Your task to perform on an android device: Search for asus zenbook on walmart, select the first entry, add it to the cart, then select checkout. Image 0: 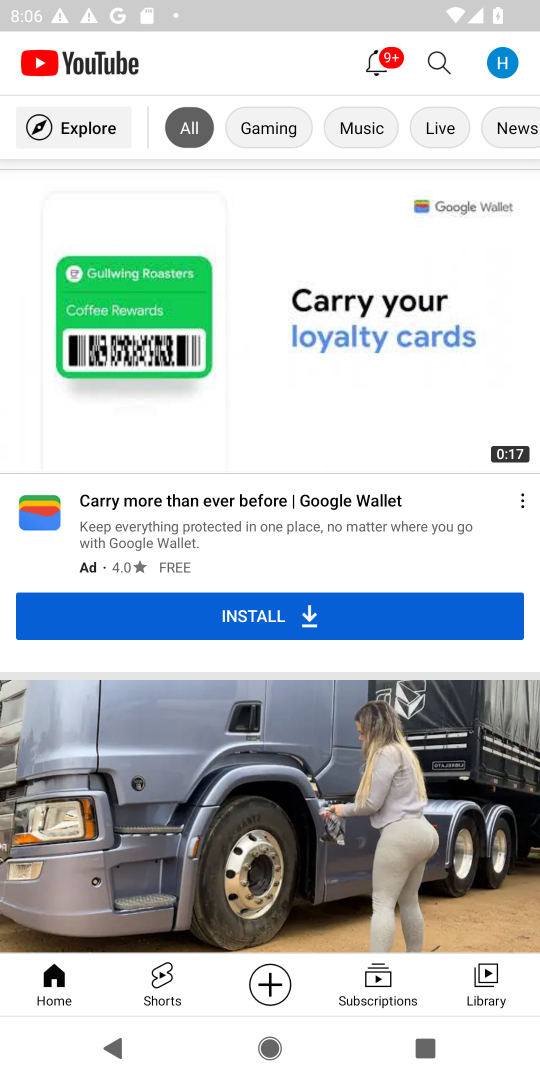
Step 0: press home button
Your task to perform on an android device: Search for asus zenbook on walmart, select the first entry, add it to the cart, then select checkout. Image 1: 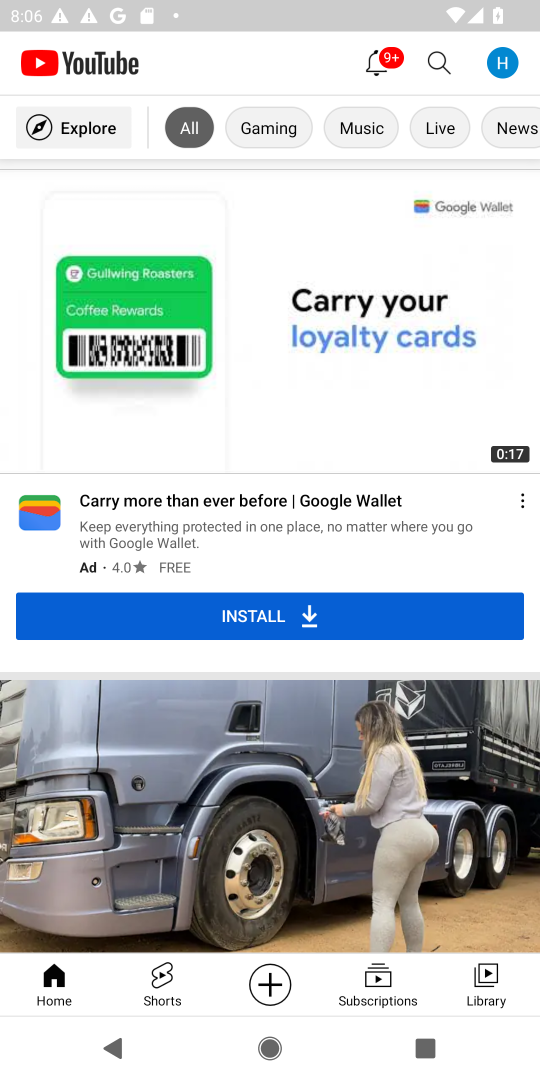
Step 1: press home button
Your task to perform on an android device: Search for asus zenbook on walmart, select the first entry, add it to the cart, then select checkout. Image 2: 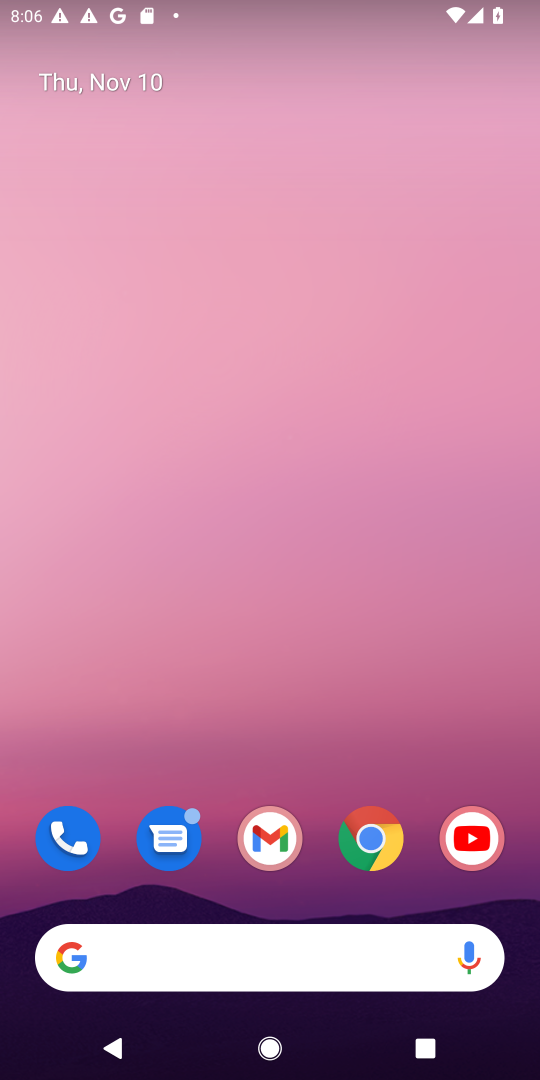
Step 2: drag from (319, 885) to (250, 38)
Your task to perform on an android device: Search for asus zenbook on walmart, select the first entry, add it to the cart, then select checkout. Image 3: 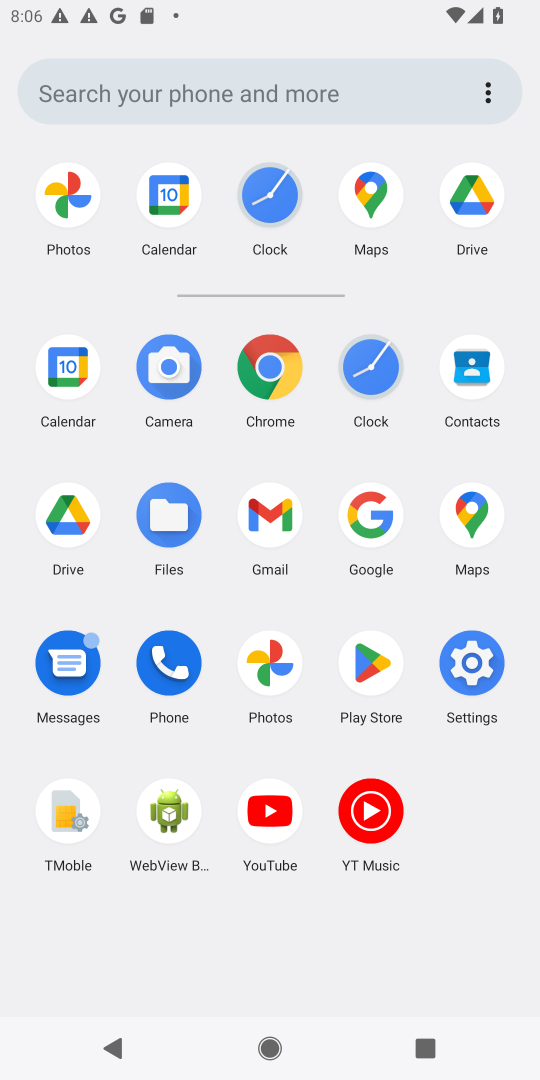
Step 3: click (271, 366)
Your task to perform on an android device: Search for asus zenbook on walmart, select the first entry, add it to the cart, then select checkout. Image 4: 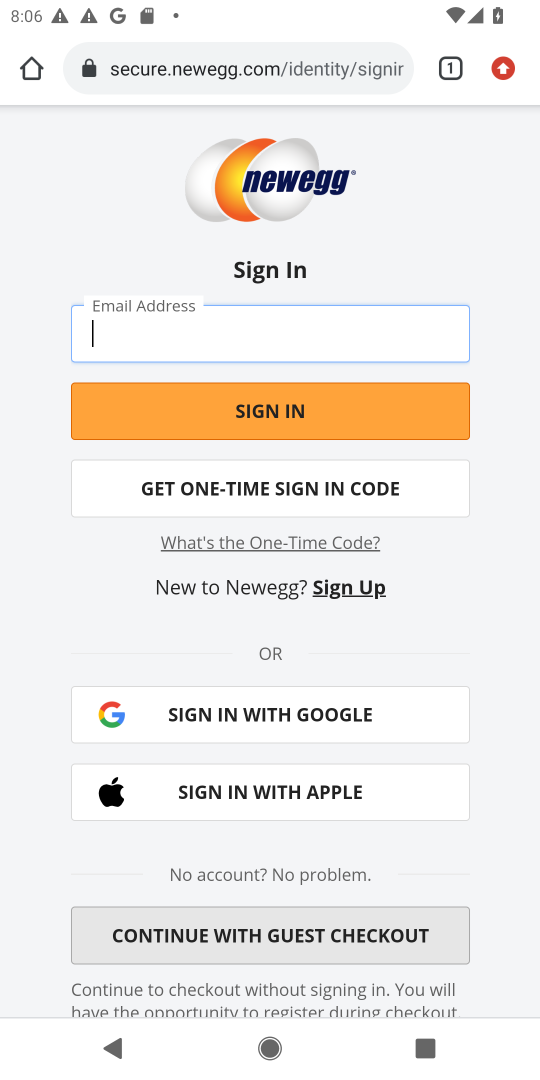
Step 4: click (269, 72)
Your task to perform on an android device: Search for asus zenbook on walmart, select the first entry, add it to the cart, then select checkout. Image 5: 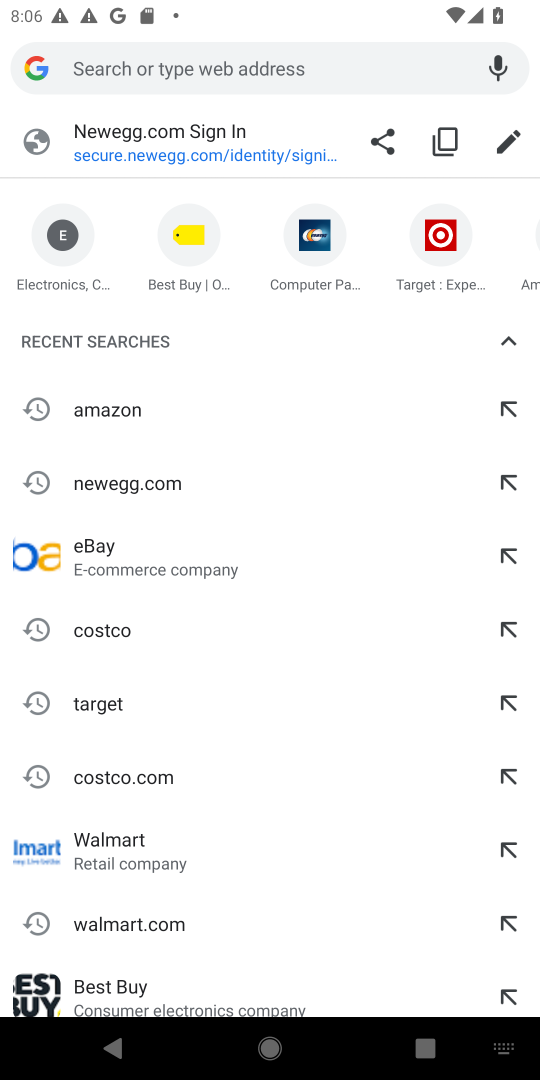
Step 5: type "walmart.com"
Your task to perform on an android device: Search for asus zenbook on walmart, select the first entry, add it to the cart, then select checkout. Image 6: 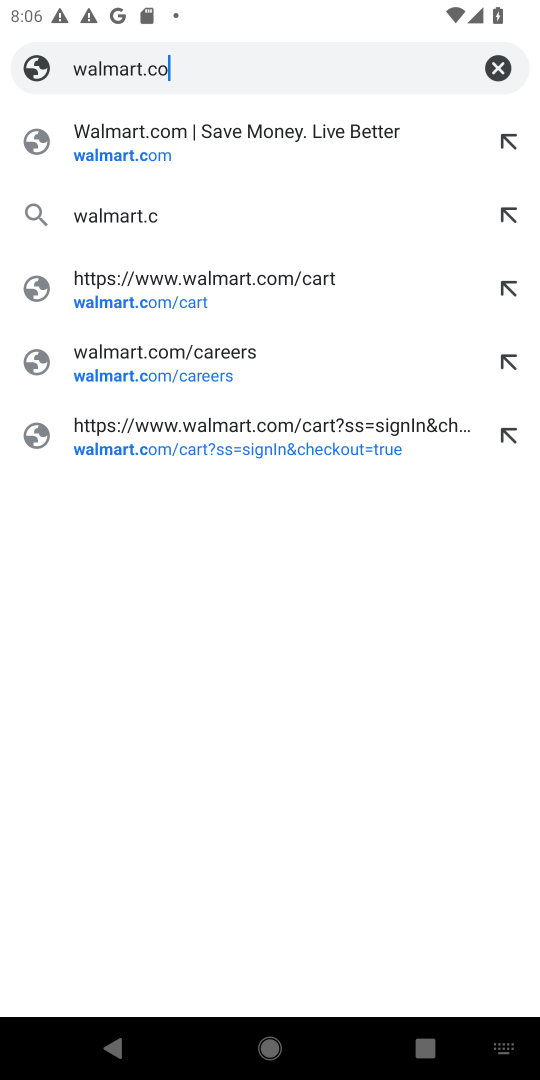
Step 6: press enter
Your task to perform on an android device: Search for asus zenbook on walmart, select the first entry, add it to the cart, then select checkout. Image 7: 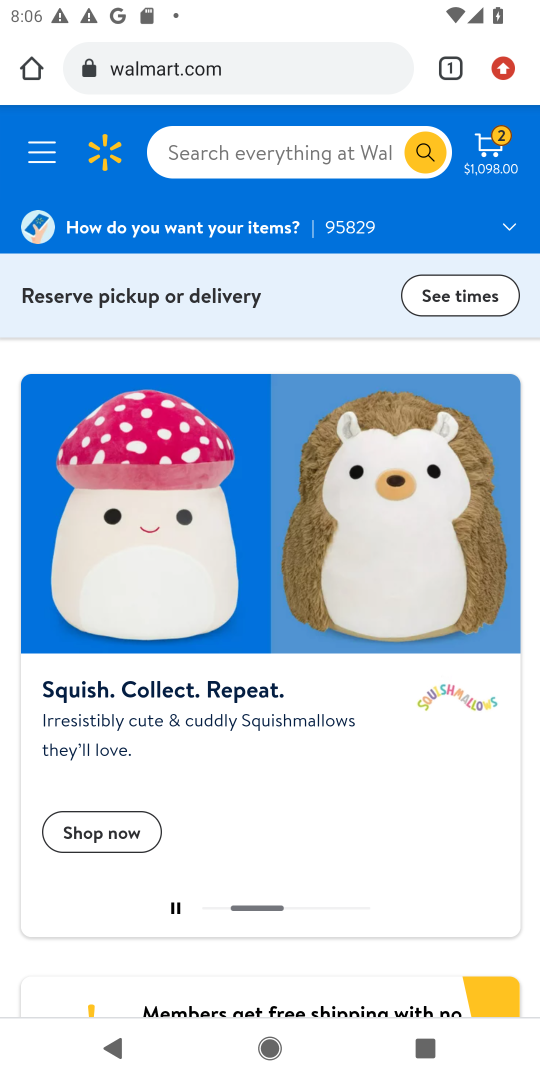
Step 7: click (345, 145)
Your task to perform on an android device: Search for asus zenbook on walmart, select the first entry, add it to the cart, then select checkout. Image 8: 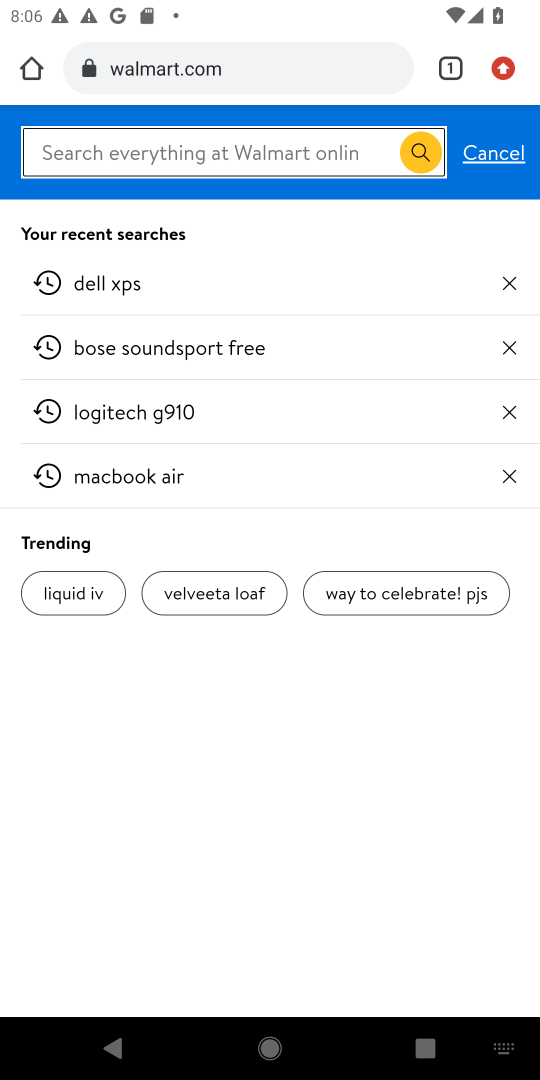
Step 8: type "asus zenbook"
Your task to perform on an android device: Search for asus zenbook on walmart, select the first entry, add it to the cart, then select checkout. Image 9: 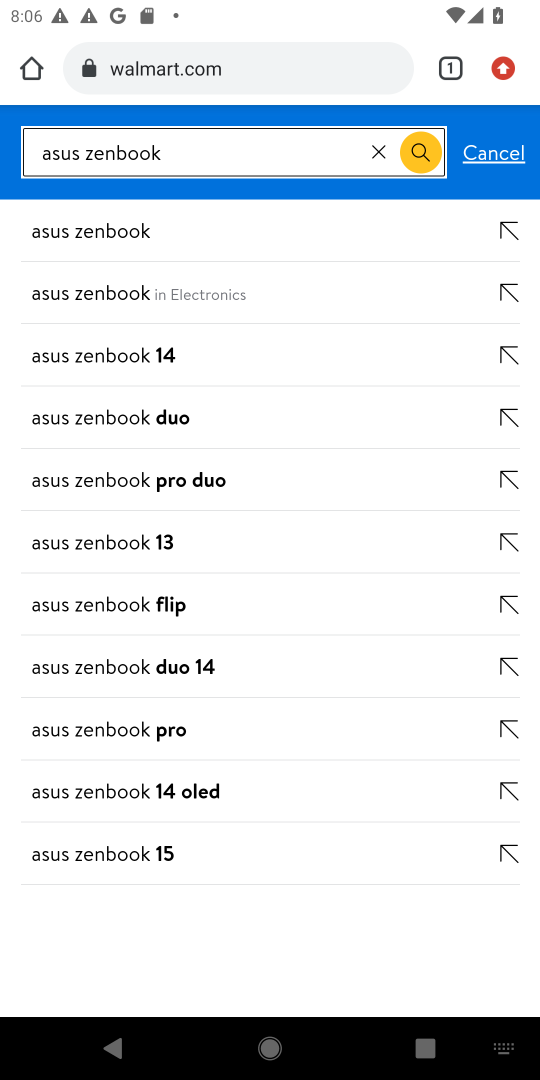
Step 9: press enter
Your task to perform on an android device: Search for asus zenbook on walmart, select the first entry, add it to the cart, then select checkout. Image 10: 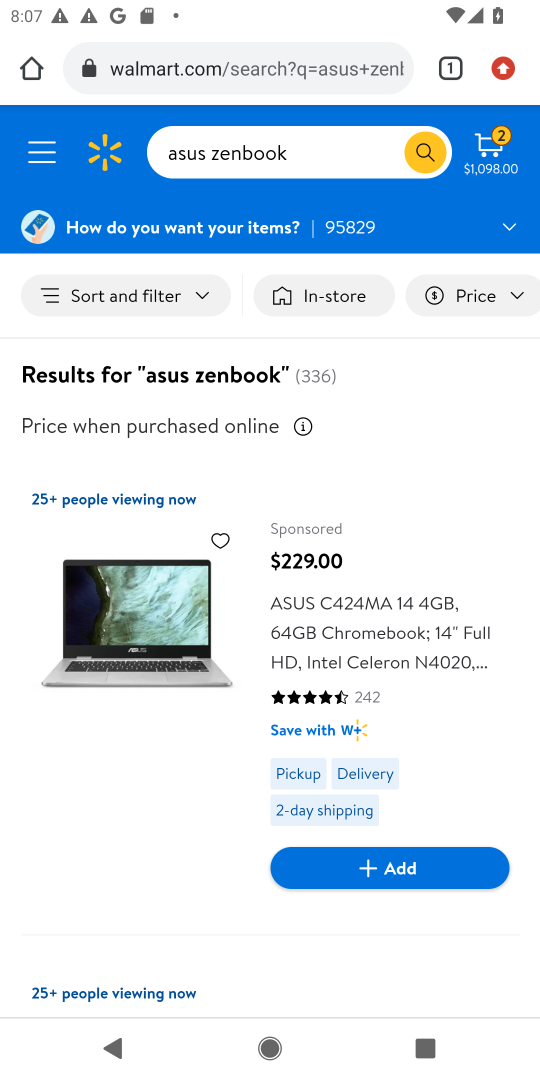
Step 10: drag from (425, 614) to (438, 179)
Your task to perform on an android device: Search for asus zenbook on walmart, select the first entry, add it to the cart, then select checkout. Image 11: 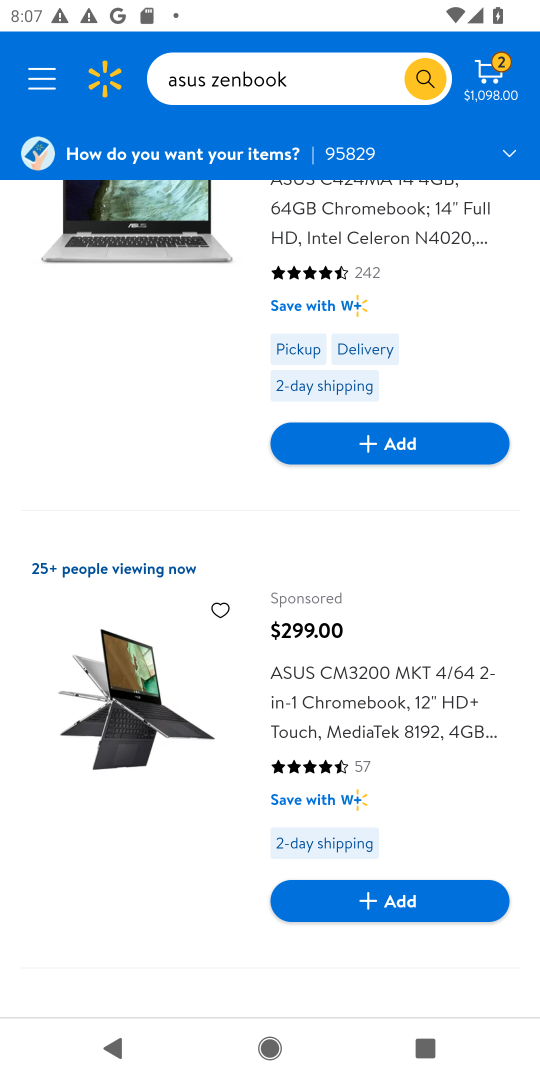
Step 11: drag from (434, 789) to (462, 365)
Your task to perform on an android device: Search for asus zenbook on walmart, select the first entry, add it to the cart, then select checkout. Image 12: 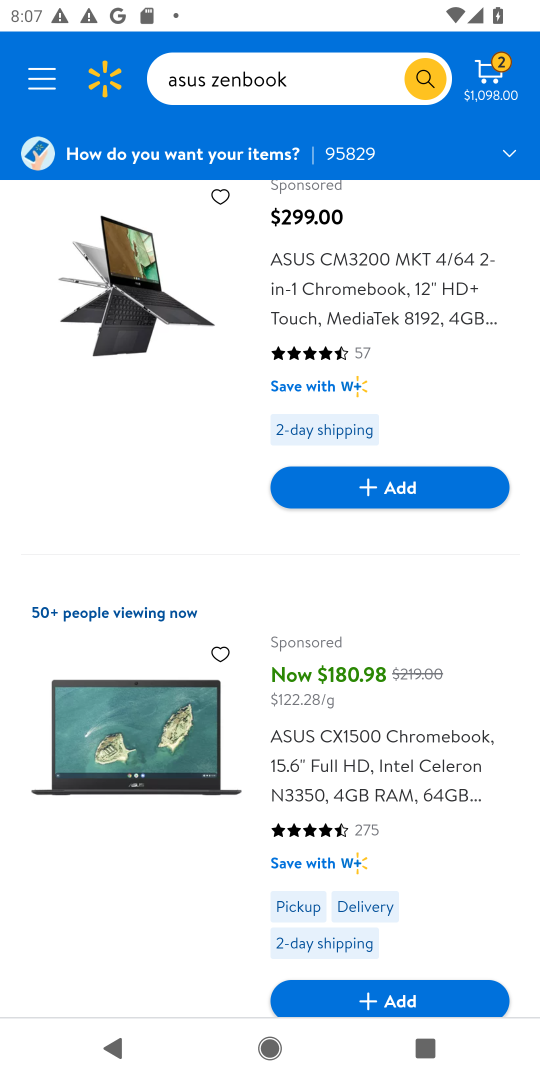
Step 12: drag from (372, 826) to (357, 236)
Your task to perform on an android device: Search for asus zenbook on walmart, select the first entry, add it to the cart, then select checkout. Image 13: 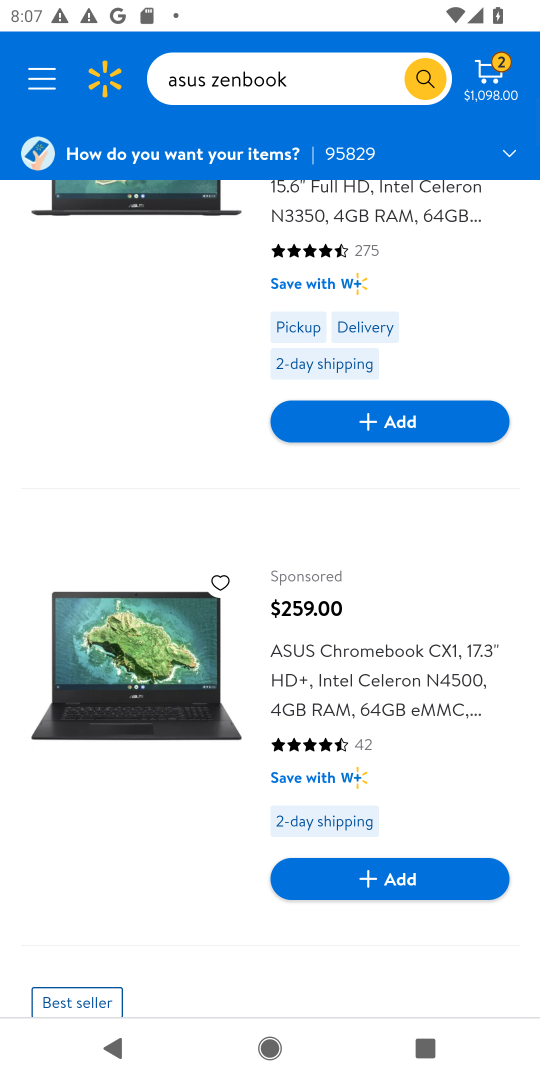
Step 13: drag from (372, 874) to (360, 207)
Your task to perform on an android device: Search for asus zenbook on walmart, select the first entry, add it to the cart, then select checkout. Image 14: 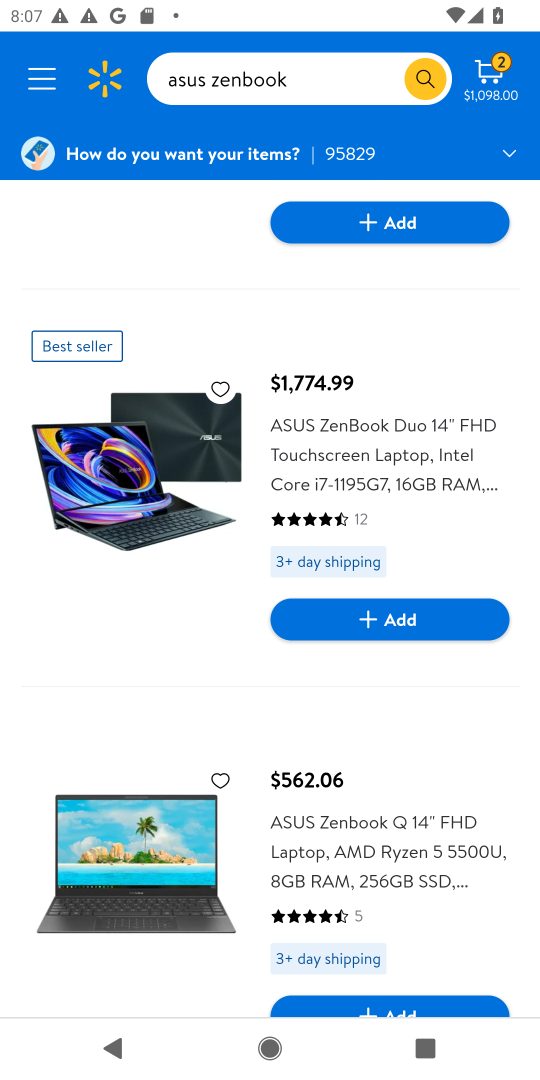
Step 14: click (419, 624)
Your task to perform on an android device: Search for asus zenbook on walmart, select the first entry, add it to the cart, then select checkout. Image 15: 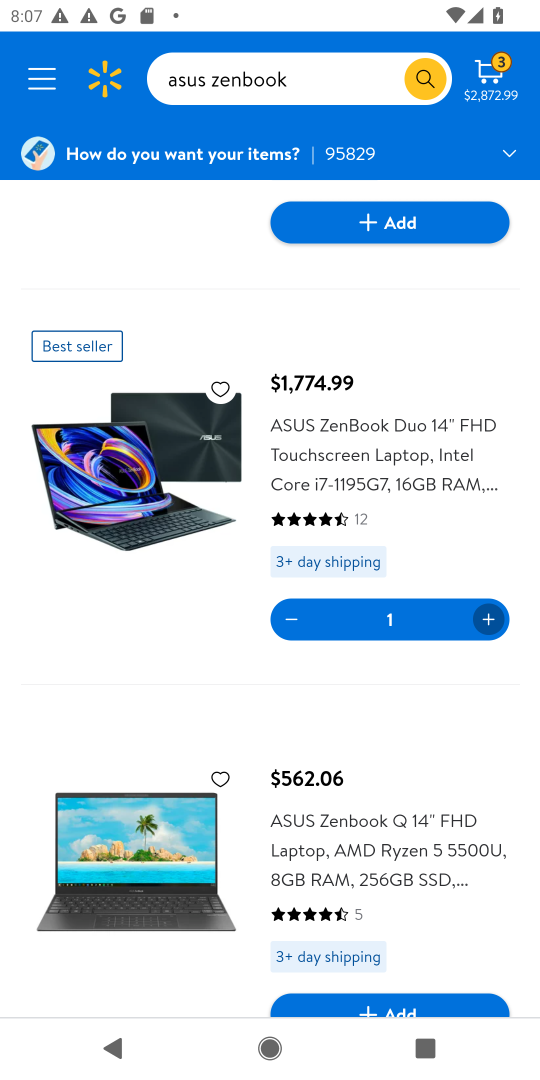
Step 15: click (488, 73)
Your task to perform on an android device: Search for asus zenbook on walmart, select the first entry, add it to the cart, then select checkout. Image 16: 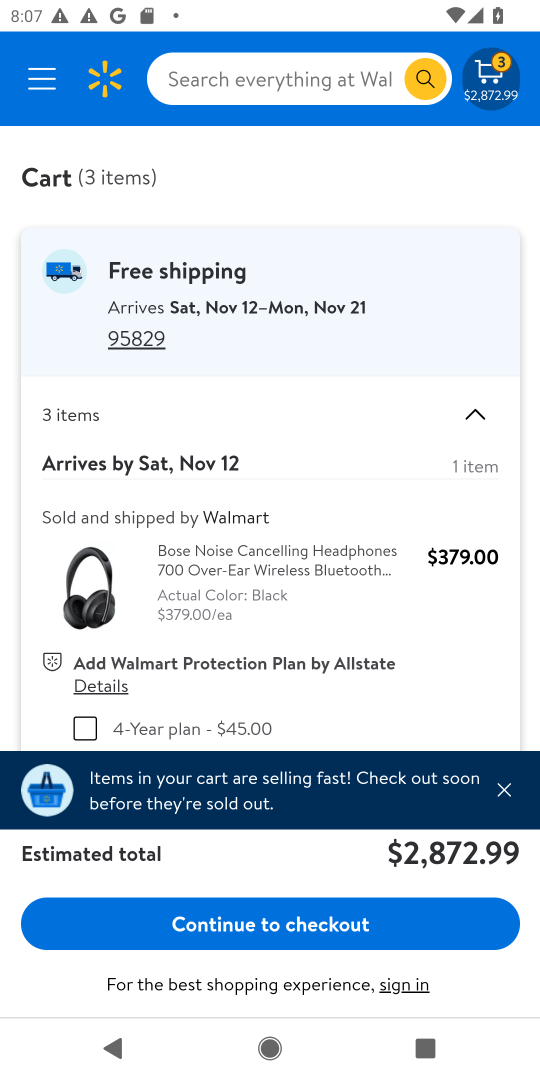
Step 16: click (318, 930)
Your task to perform on an android device: Search for asus zenbook on walmart, select the first entry, add it to the cart, then select checkout. Image 17: 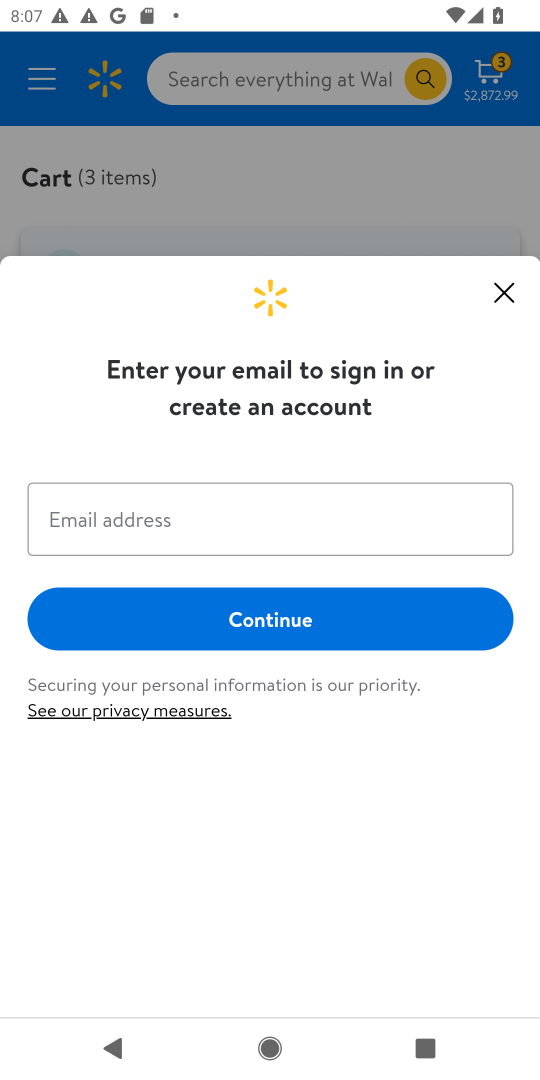
Step 17: task complete